Your task to perform on an android device: move an email to a new category in the gmail app Image 0: 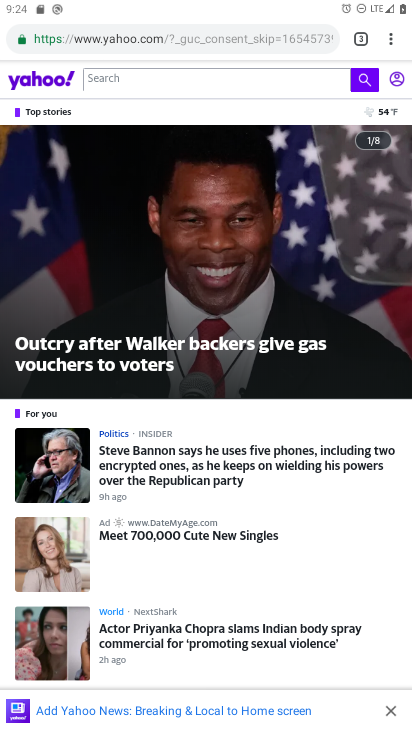
Step 0: press home button
Your task to perform on an android device: move an email to a new category in the gmail app Image 1: 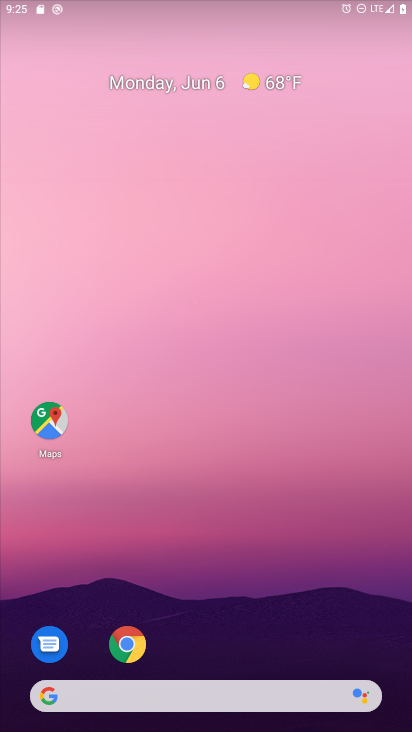
Step 1: drag from (312, 684) to (260, 258)
Your task to perform on an android device: move an email to a new category in the gmail app Image 2: 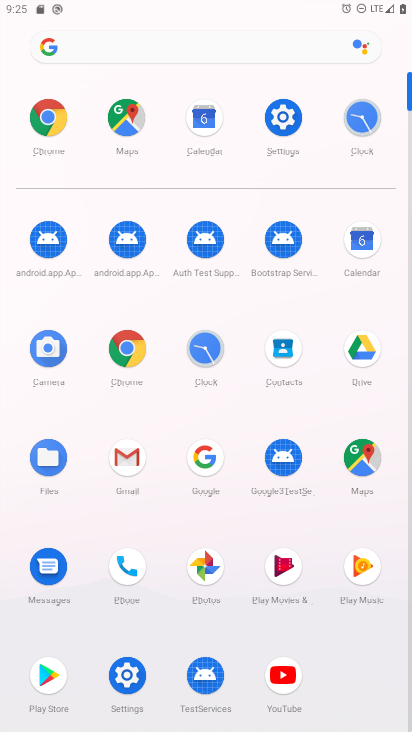
Step 2: click (144, 451)
Your task to perform on an android device: move an email to a new category in the gmail app Image 3: 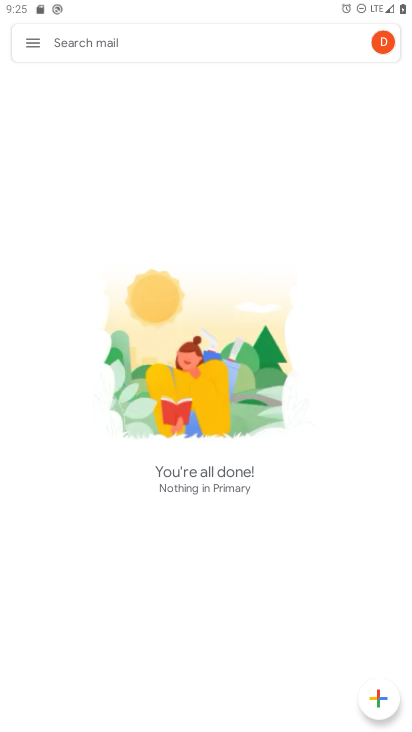
Step 3: click (27, 48)
Your task to perform on an android device: move an email to a new category in the gmail app Image 4: 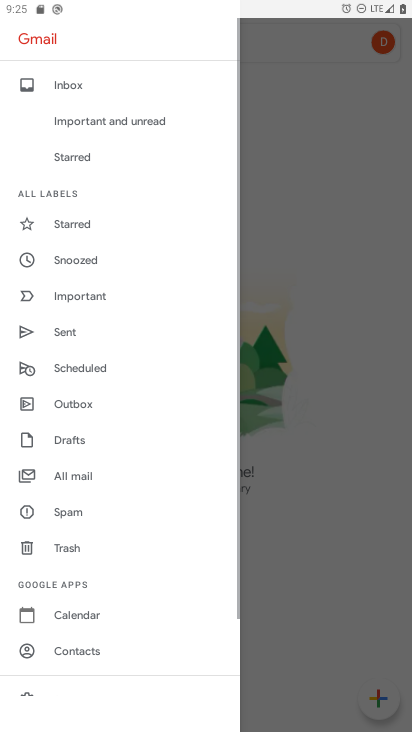
Step 4: drag from (100, 619) to (136, 550)
Your task to perform on an android device: move an email to a new category in the gmail app Image 5: 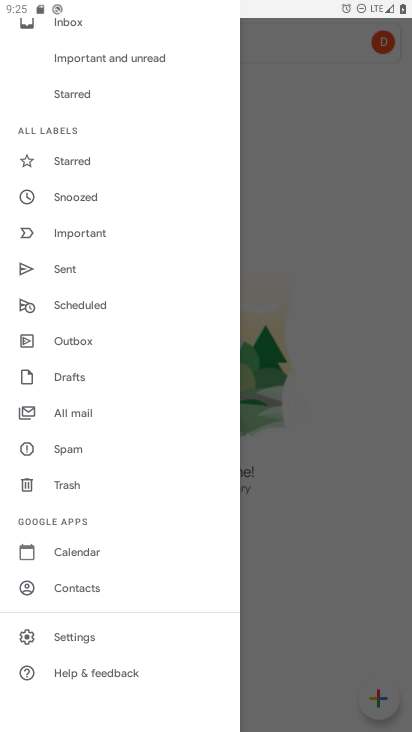
Step 5: click (74, 634)
Your task to perform on an android device: move an email to a new category in the gmail app Image 6: 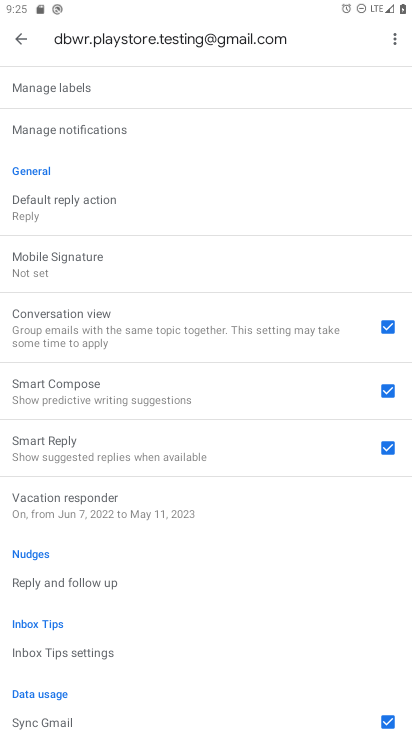
Step 6: drag from (75, 173) to (112, 236)
Your task to perform on an android device: move an email to a new category in the gmail app Image 7: 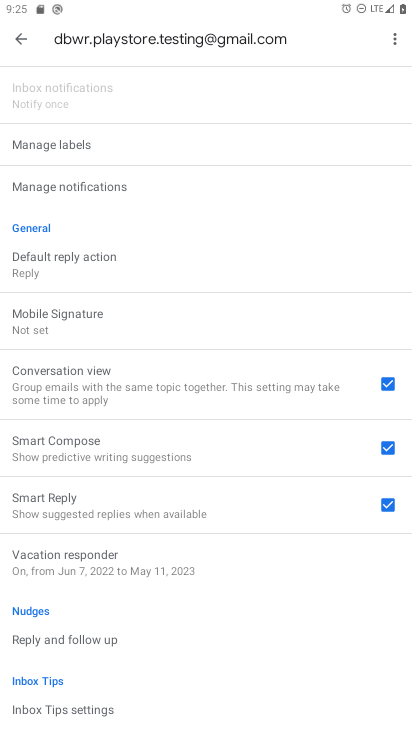
Step 7: drag from (60, 159) to (128, 407)
Your task to perform on an android device: move an email to a new category in the gmail app Image 8: 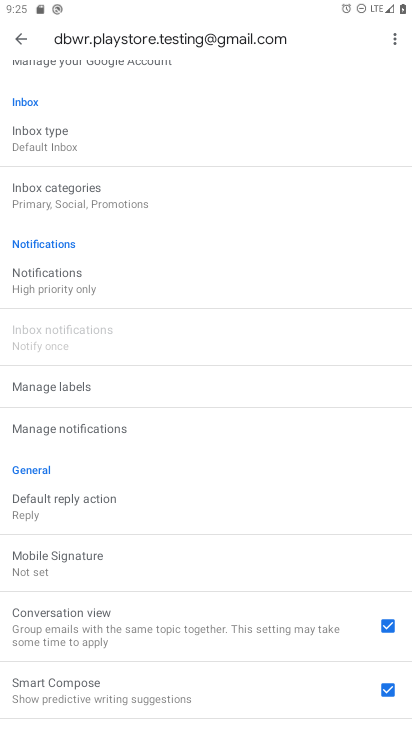
Step 8: click (82, 194)
Your task to perform on an android device: move an email to a new category in the gmail app Image 9: 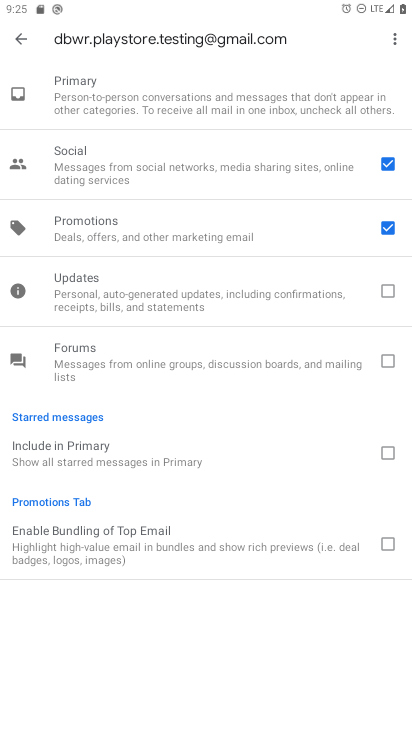
Step 9: click (388, 357)
Your task to perform on an android device: move an email to a new category in the gmail app Image 10: 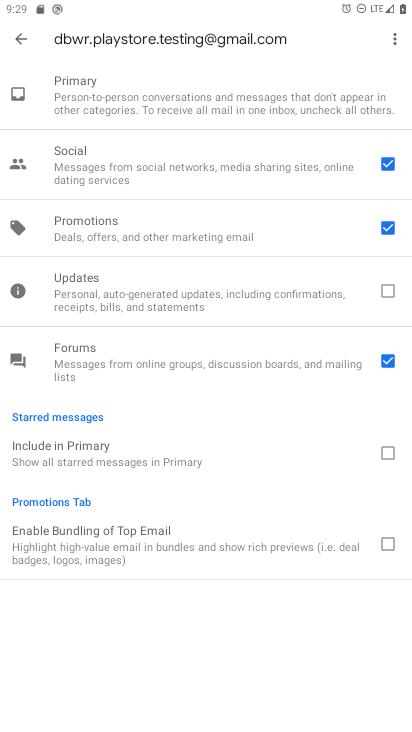
Step 10: task complete